Your task to perform on an android device: turn vacation reply on in the gmail app Image 0: 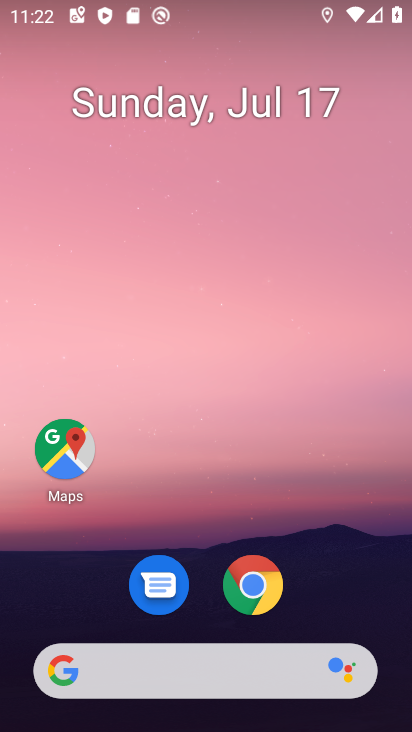
Step 0: drag from (253, 437) to (285, 1)
Your task to perform on an android device: turn vacation reply on in the gmail app Image 1: 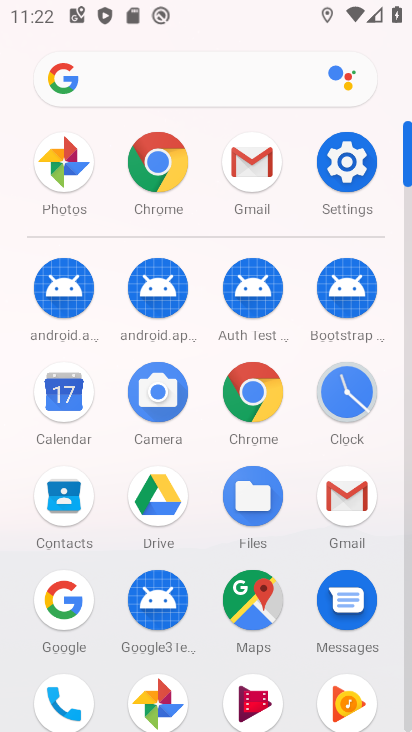
Step 1: click (251, 171)
Your task to perform on an android device: turn vacation reply on in the gmail app Image 2: 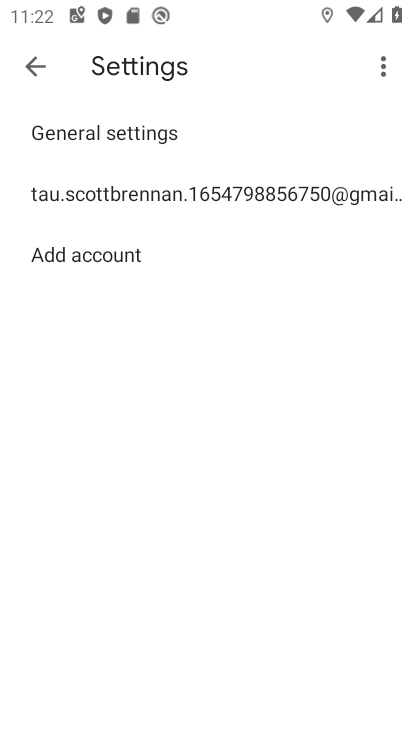
Step 2: click (251, 193)
Your task to perform on an android device: turn vacation reply on in the gmail app Image 3: 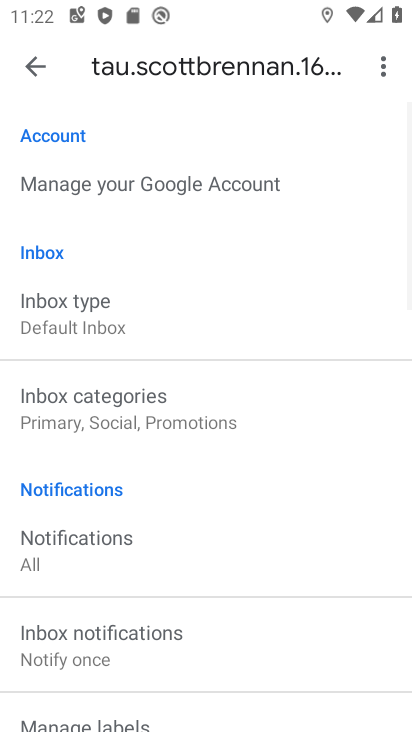
Step 3: drag from (268, 599) to (321, 5)
Your task to perform on an android device: turn vacation reply on in the gmail app Image 4: 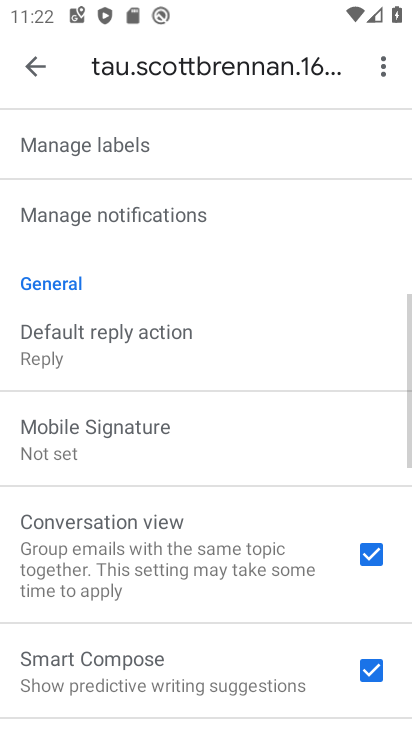
Step 4: drag from (218, 587) to (250, 135)
Your task to perform on an android device: turn vacation reply on in the gmail app Image 5: 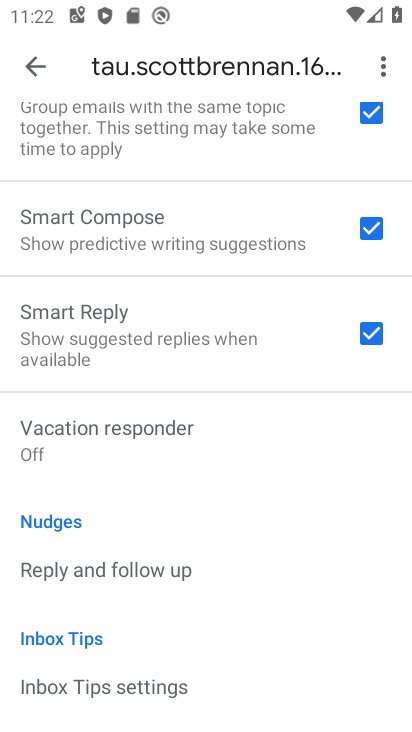
Step 5: click (211, 432)
Your task to perform on an android device: turn vacation reply on in the gmail app Image 6: 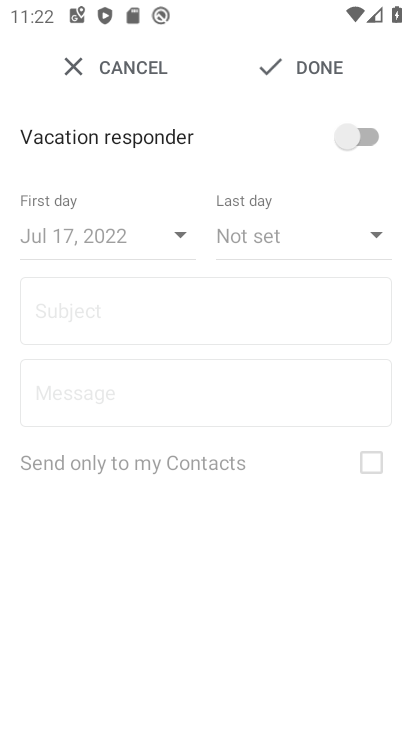
Step 6: click (358, 125)
Your task to perform on an android device: turn vacation reply on in the gmail app Image 7: 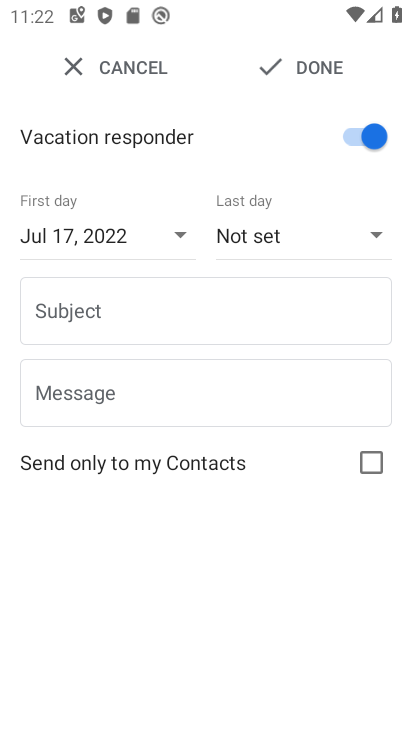
Step 7: task complete